Your task to perform on an android device: turn off translation in the chrome app Image 0: 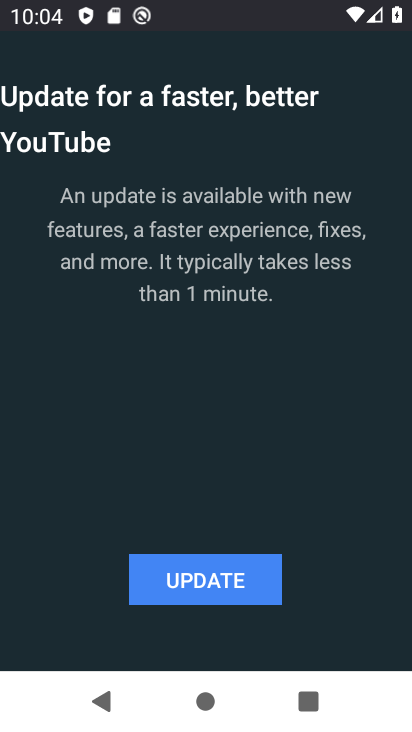
Step 0: press home button
Your task to perform on an android device: turn off translation in the chrome app Image 1: 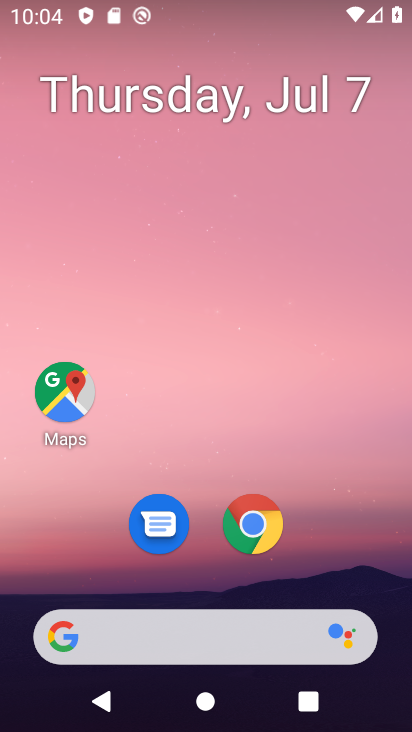
Step 1: click (269, 531)
Your task to perform on an android device: turn off translation in the chrome app Image 2: 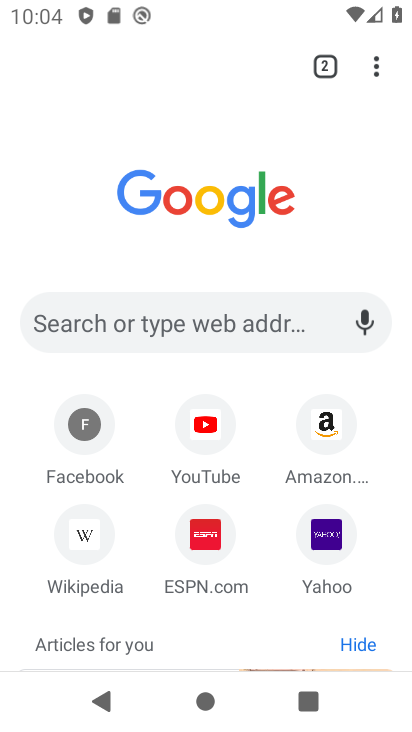
Step 2: click (378, 68)
Your task to perform on an android device: turn off translation in the chrome app Image 3: 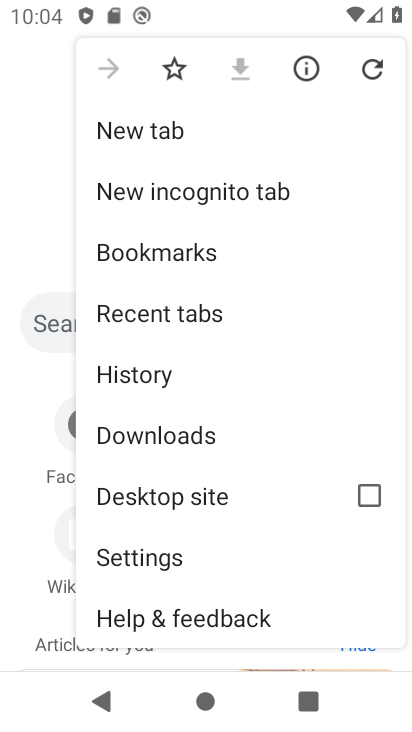
Step 3: drag from (225, 503) to (253, 184)
Your task to perform on an android device: turn off translation in the chrome app Image 4: 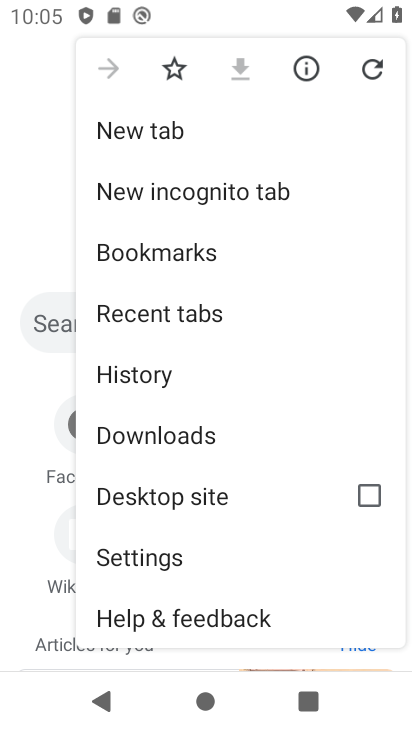
Step 4: click (185, 563)
Your task to perform on an android device: turn off translation in the chrome app Image 5: 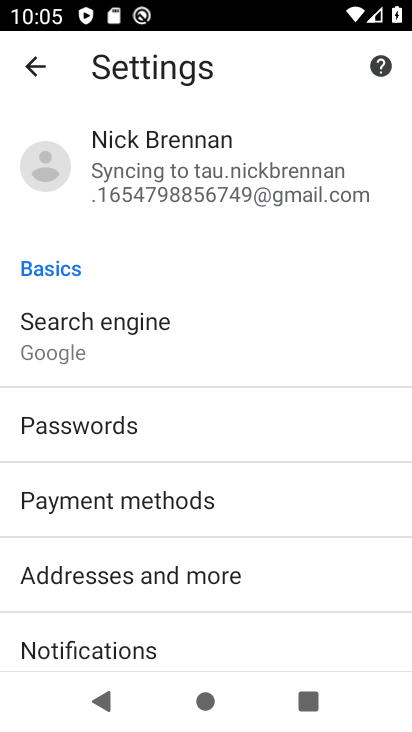
Step 5: drag from (255, 513) to (250, 107)
Your task to perform on an android device: turn off translation in the chrome app Image 6: 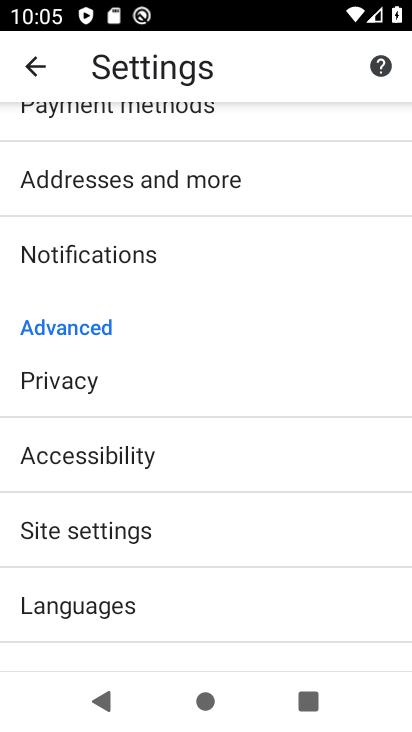
Step 6: click (194, 603)
Your task to perform on an android device: turn off translation in the chrome app Image 7: 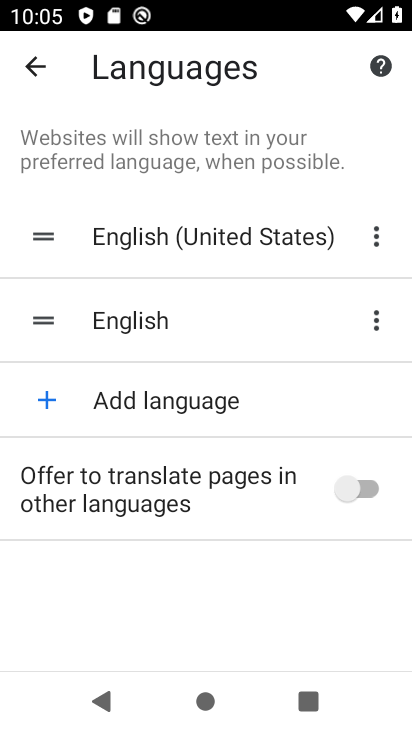
Step 7: click (366, 482)
Your task to perform on an android device: turn off translation in the chrome app Image 8: 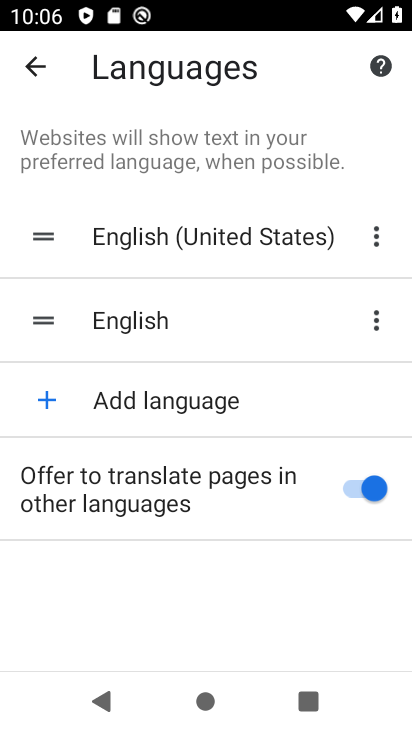
Step 8: click (367, 482)
Your task to perform on an android device: turn off translation in the chrome app Image 9: 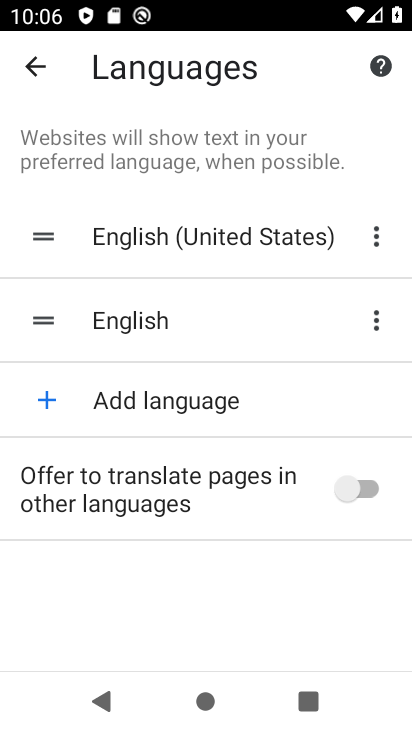
Step 9: task complete